Your task to perform on an android device: Turn on the flashlight Image 0: 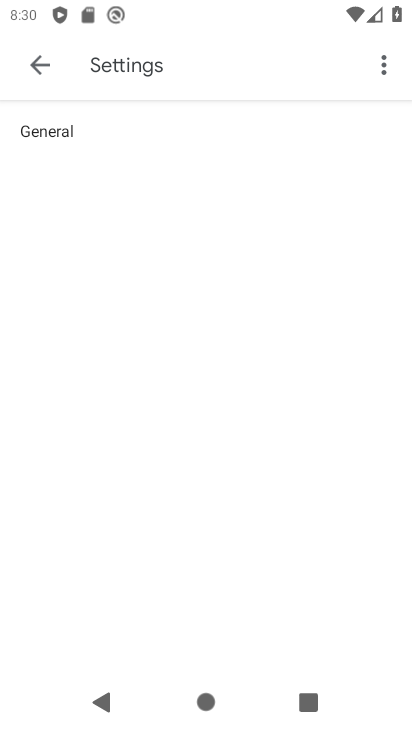
Step 0: drag from (262, 13) to (162, 434)
Your task to perform on an android device: Turn on the flashlight Image 1: 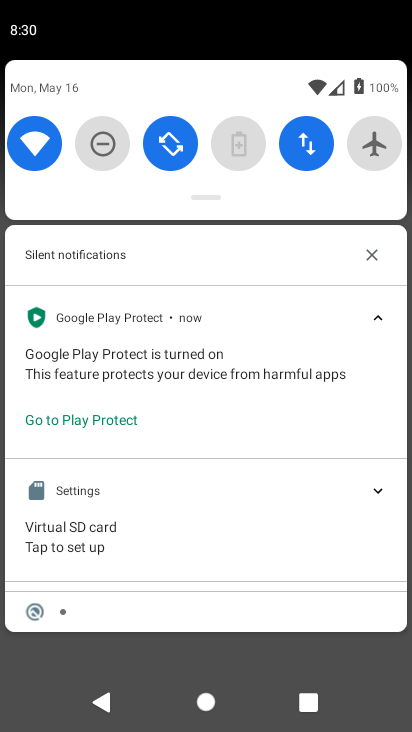
Step 1: task complete